Your task to perform on an android device: open app "Google Docs" Image 0: 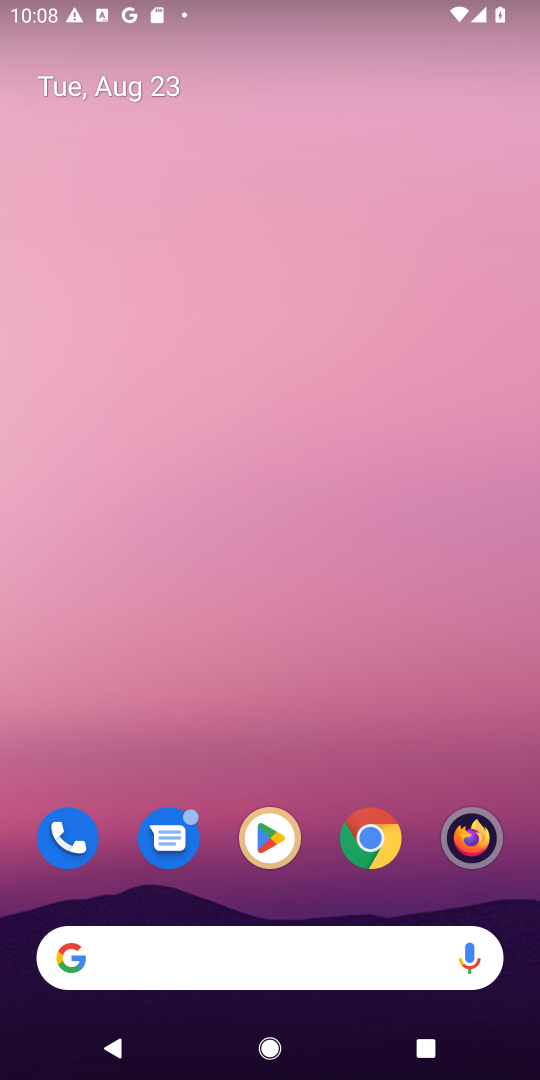
Step 0: click (265, 842)
Your task to perform on an android device: open app "Google Docs" Image 1: 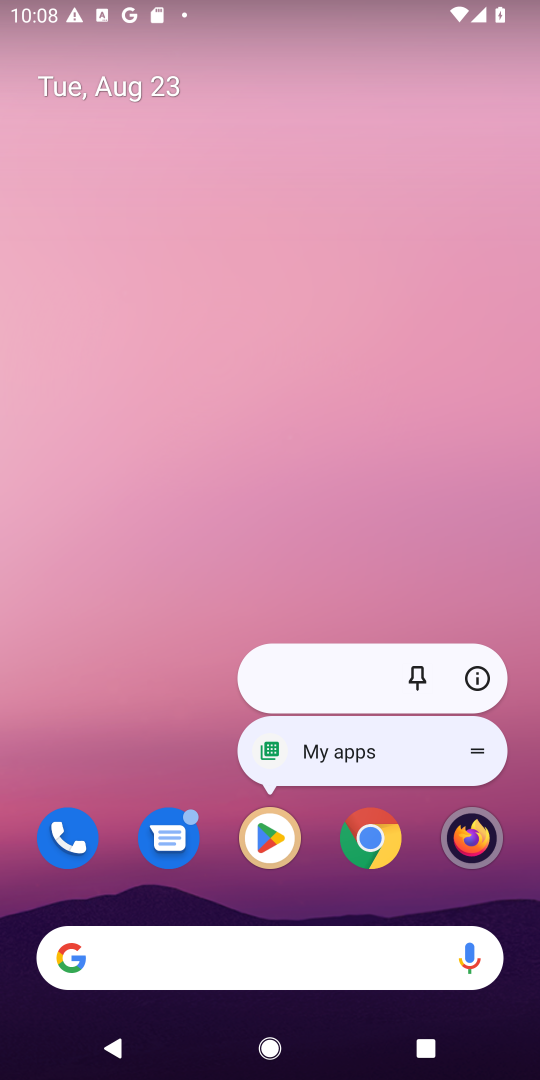
Step 1: click (285, 823)
Your task to perform on an android device: open app "Google Docs" Image 2: 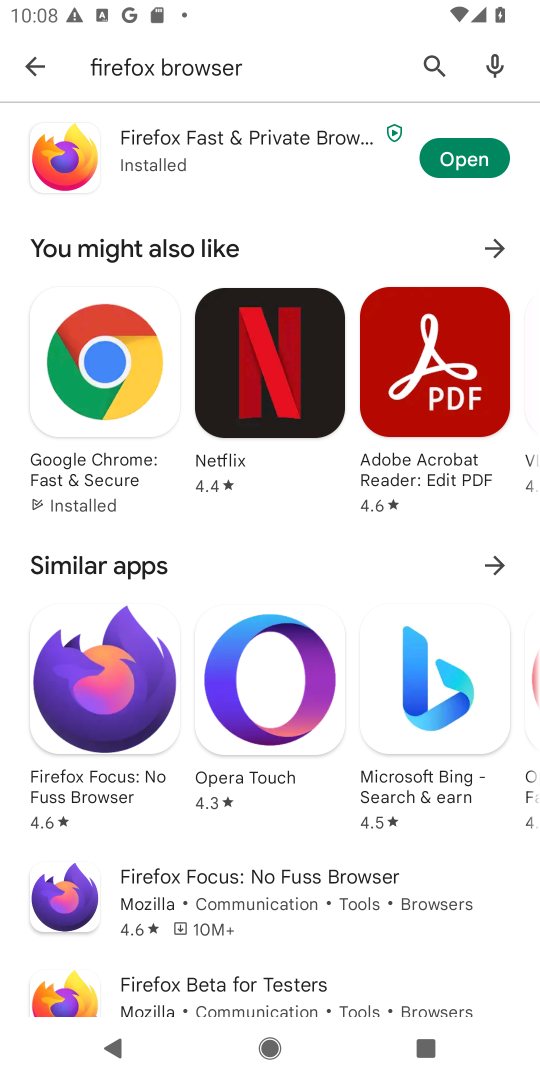
Step 2: click (436, 63)
Your task to perform on an android device: open app "Google Docs" Image 3: 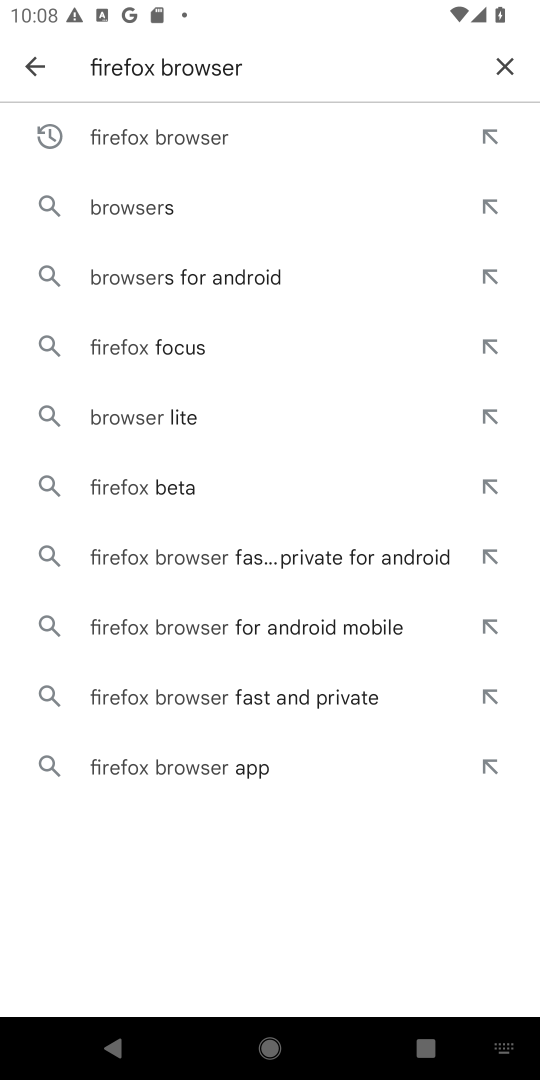
Step 3: click (498, 82)
Your task to perform on an android device: open app "Google Docs" Image 4: 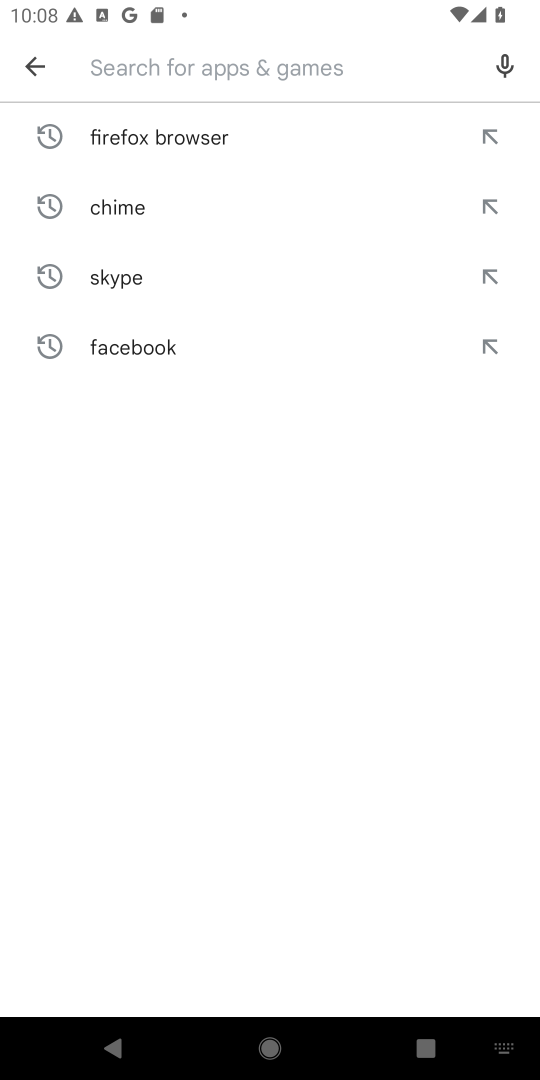
Step 4: type "Google Docs"
Your task to perform on an android device: open app "Google Docs" Image 5: 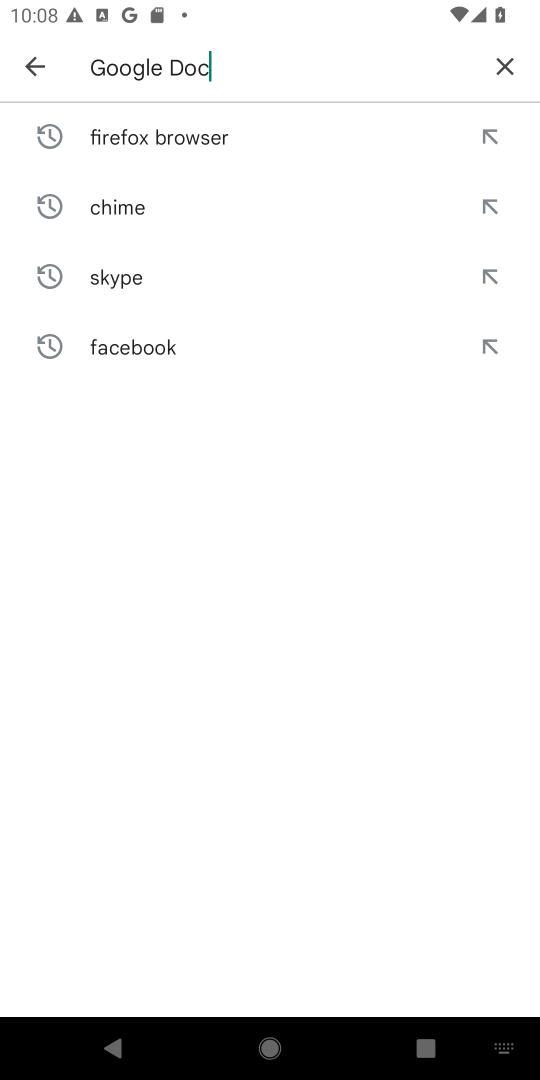
Step 5: type ""
Your task to perform on an android device: open app "Google Docs" Image 6: 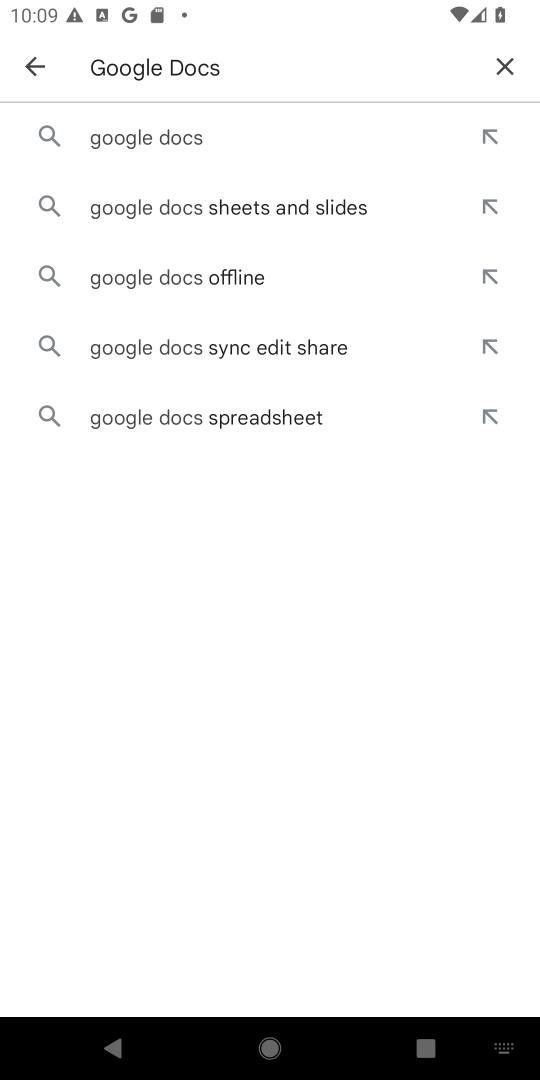
Step 6: click (189, 144)
Your task to perform on an android device: open app "Google Docs" Image 7: 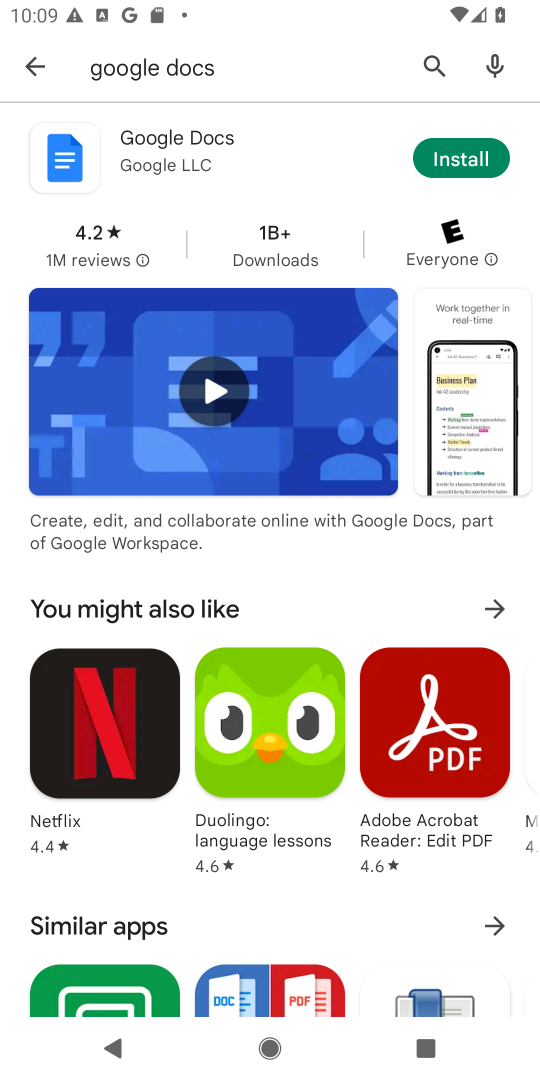
Step 7: task complete